Your task to perform on an android device: open app "Instagram" (install if not already installed) Image 0: 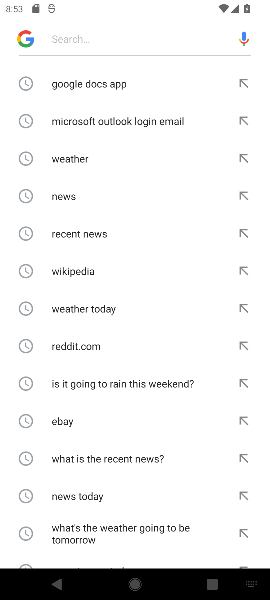
Step 0: press home button
Your task to perform on an android device: open app "Instagram" (install if not already installed) Image 1: 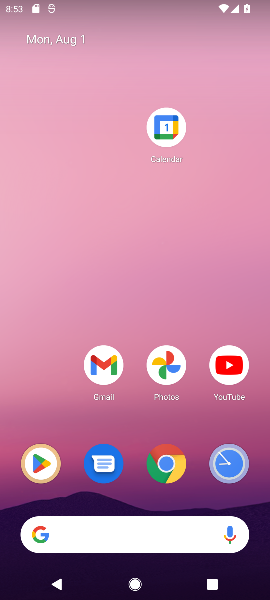
Step 1: click (43, 457)
Your task to perform on an android device: open app "Instagram" (install if not already installed) Image 2: 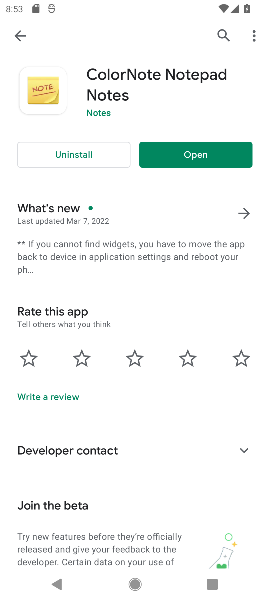
Step 2: click (216, 43)
Your task to perform on an android device: open app "Instagram" (install if not already installed) Image 3: 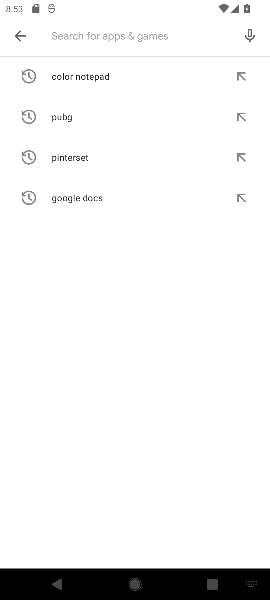
Step 3: click (227, 40)
Your task to perform on an android device: open app "Instagram" (install if not already installed) Image 4: 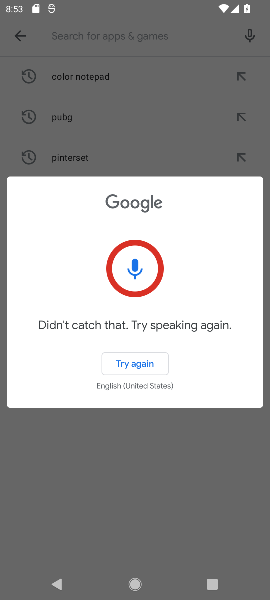
Step 4: click (119, 479)
Your task to perform on an android device: open app "Instagram" (install if not already installed) Image 5: 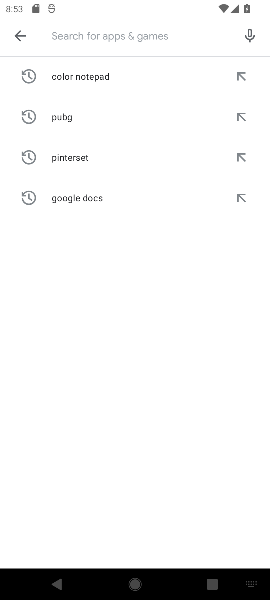
Step 5: click (157, 38)
Your task to perform on an android device: open app "Instagram" (install if not already installed) Image 6: 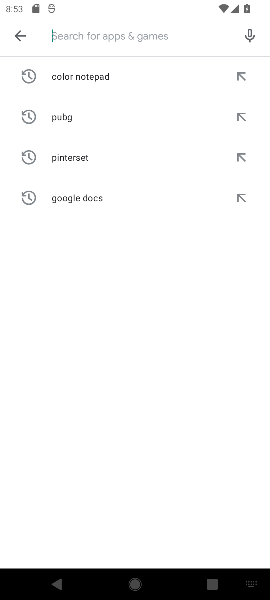
Step 6: click (157, 38)
Your task to perform on an android device: open app "Instagram" (install if not already installed) Image 7: 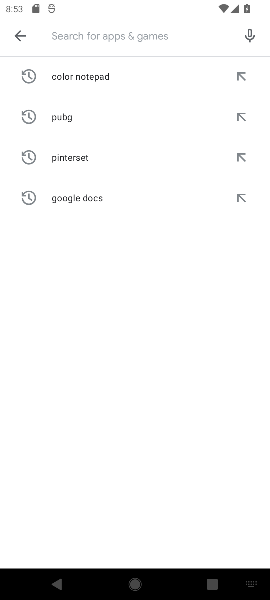
Step 7: type "instagram"
Your task to perform on an android device: open app "Instagram" (install if not already installed) Image 8: 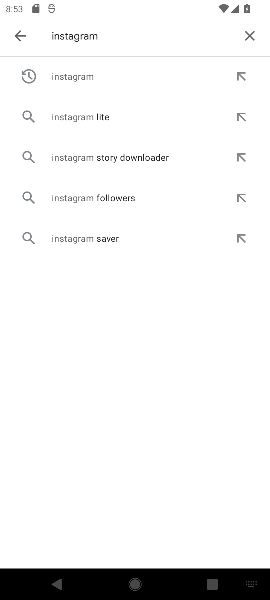
Step 8: click (69, 87)
Your task to perform on an android device: open app "Instagram" (install if not already installed) Image 9: 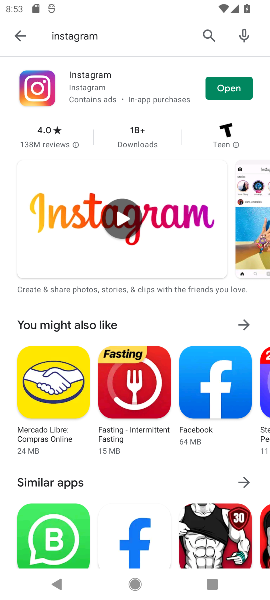
Step 9: click (244, 97)
Your task to perform on an android device: open app "Instagram" (install if not already installed) Image 10: 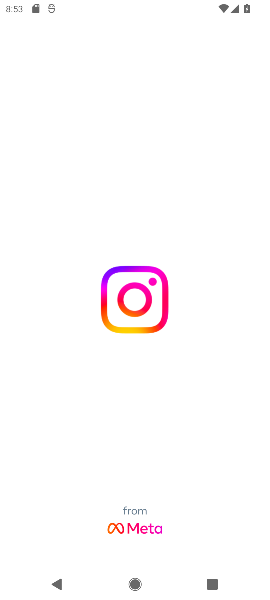
Step 10: task complete